Your task to perform on an android device: Open calendar and show me the third week of next month Image 0: 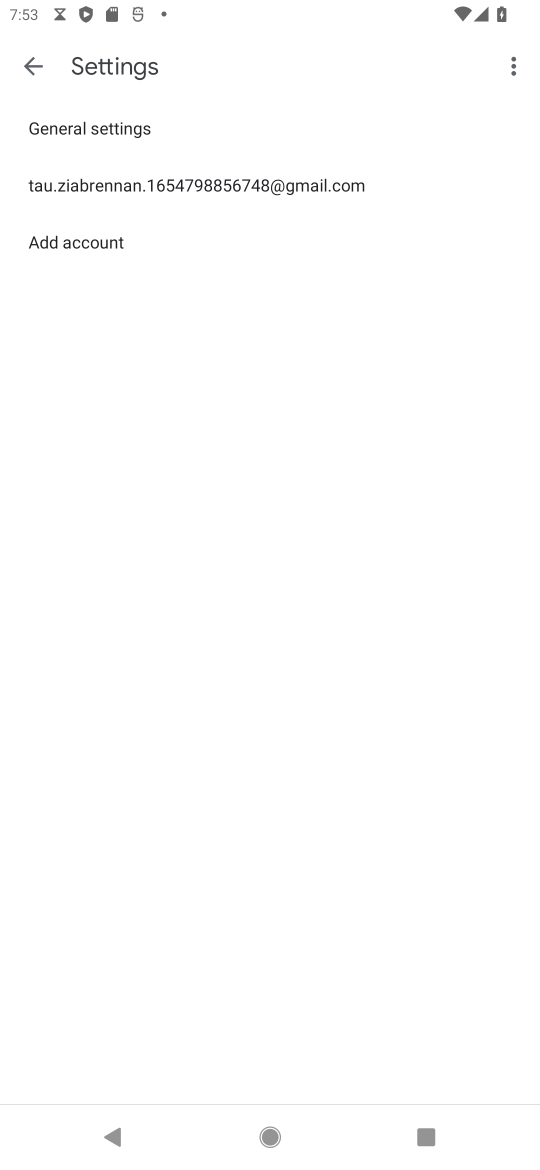
Step 0: press home button
Your task to perform on an android device: Open calendar and show me the third week of next month Image 1: 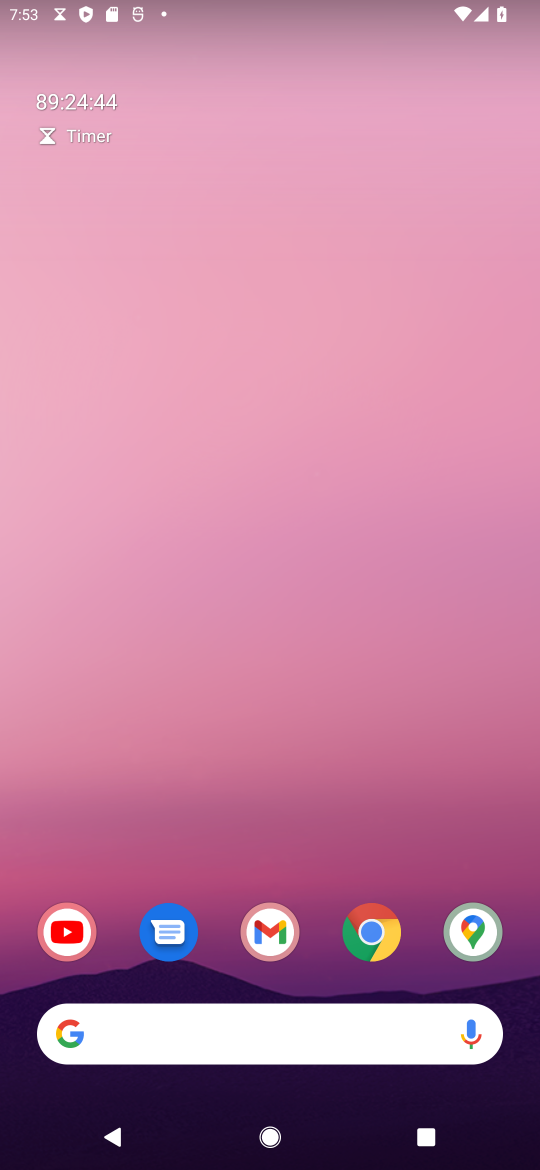
Step 1: drag from (287, 825) to (258, 235)
Your task to perform on an android device: Open calendar and show me the third week of next month Image 2: 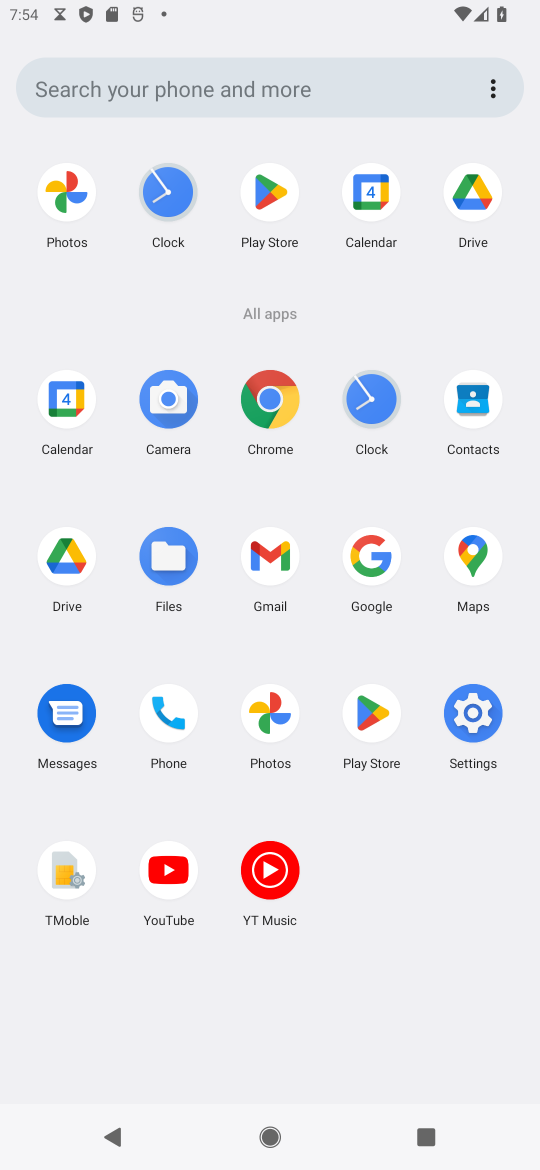
Step 2: click (77, 386)
Your task to perform on an android device: Open calendar and show me the third week of next month Image 3: 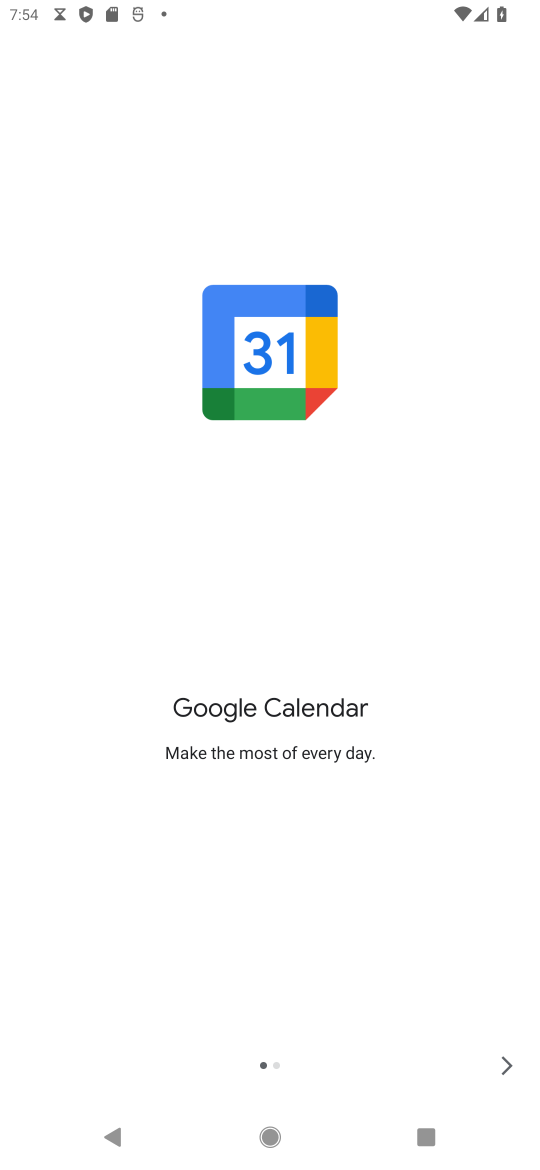
Step 3: click (495, 1068)
Your task to perform on an android device: Open calendar and show me the third week of next month Image 4: 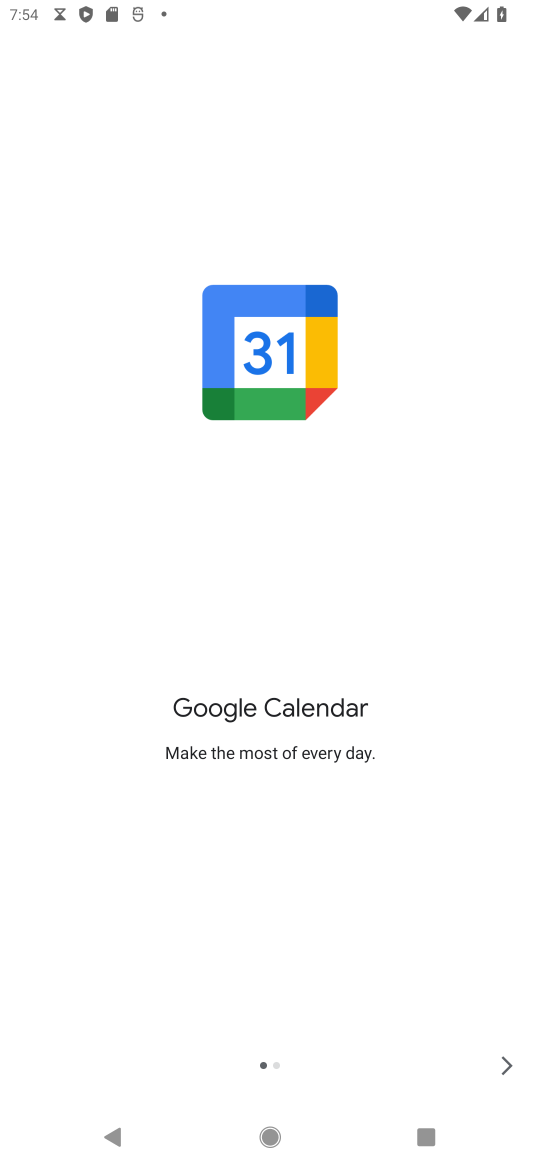
Step 4: click (495, 1068)
Your task to perform on an android device: Open calendar and show me the third week of next month Image 5: 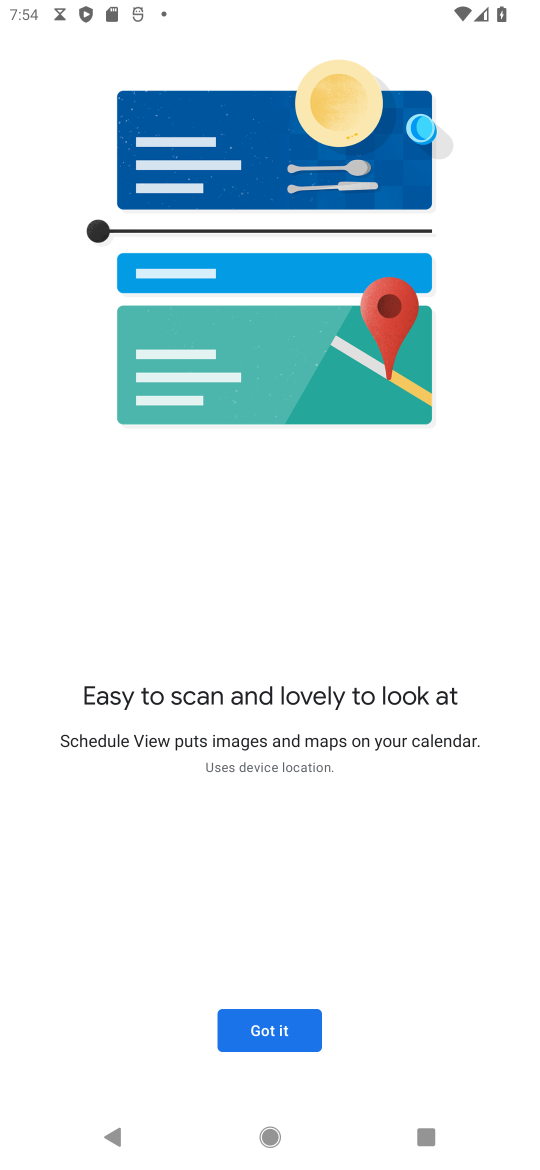
Step 5: click (281, 1025)
Your task to perform on an android device: Open calendar and show me the third week of next month Image 6: 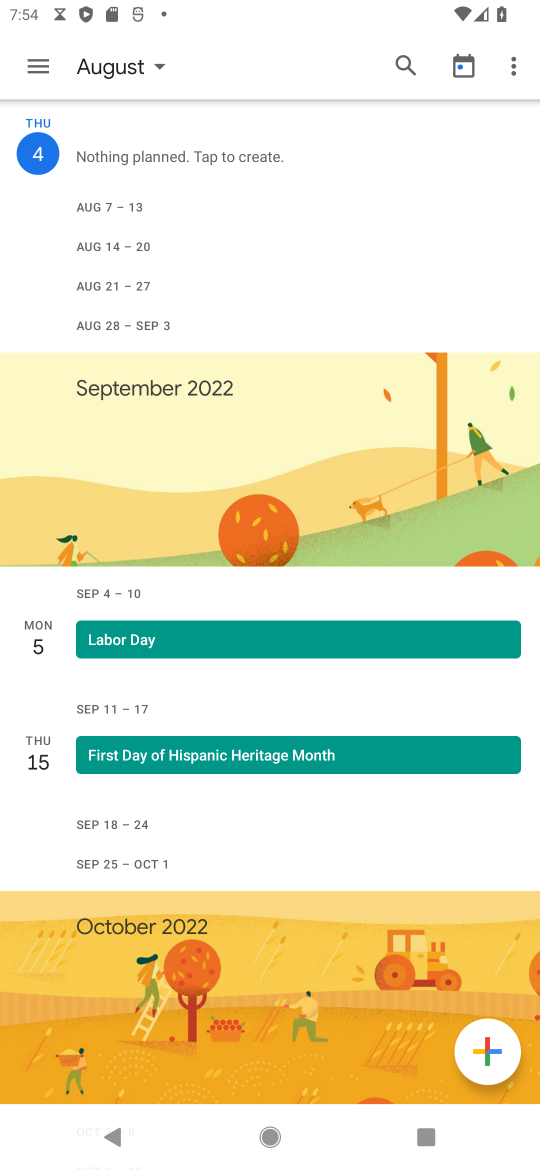
Step 6: click (146, 61)
Your task to perform on an android device: Open calendar and show me the third week of next month Image 7: 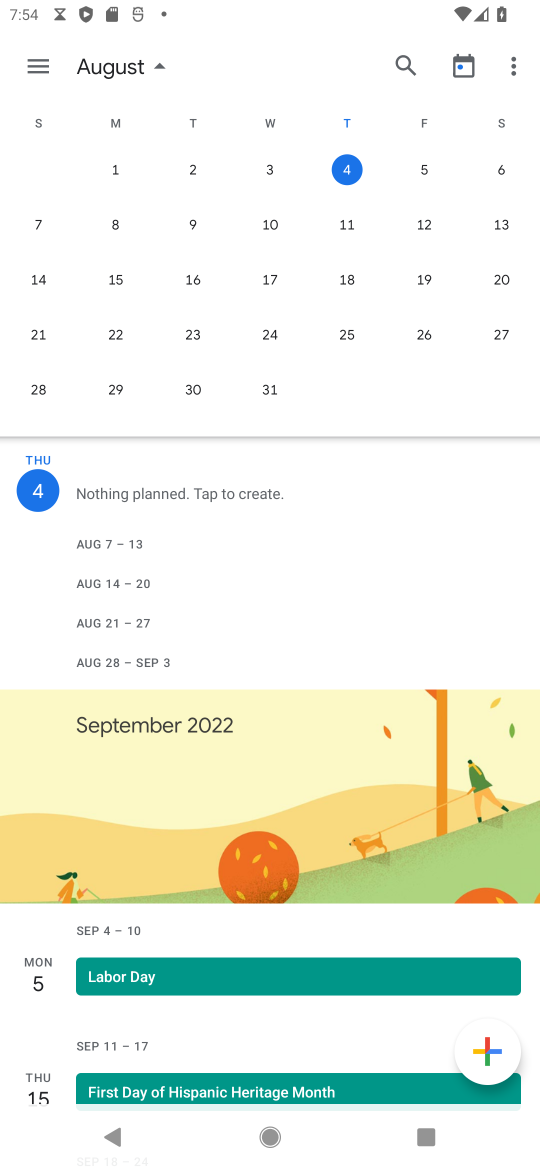
Step 7: drag from (511, 344) to (0, 371)
Your task to perform on an android device: Open calendar and show me the third week of next month Image 8: 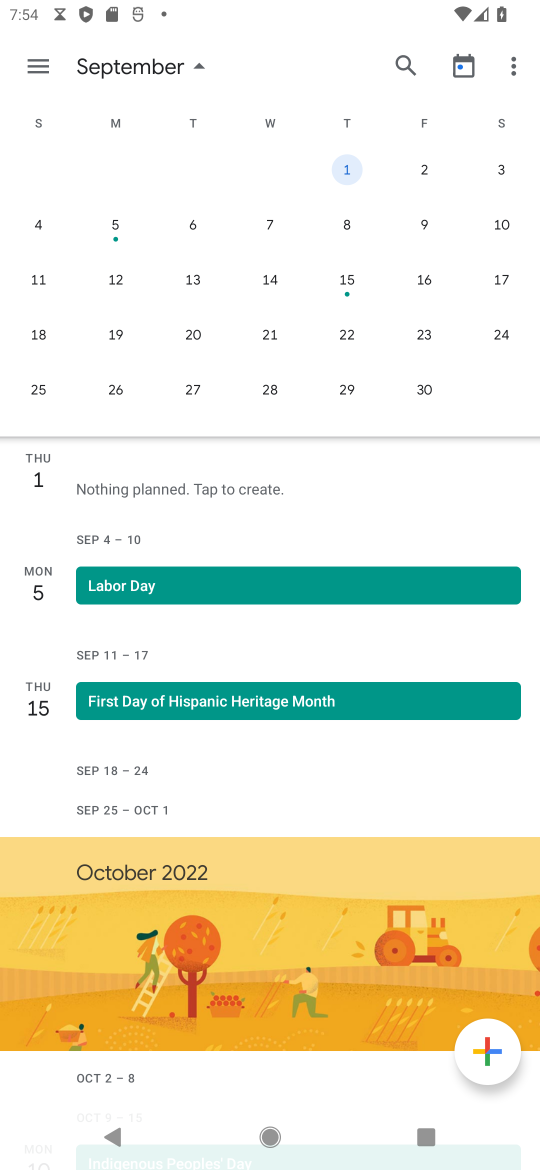
Step 8: click (29, 291)
Your task to perform on an android device: Open calendar and show me the third week of next month Image 9: 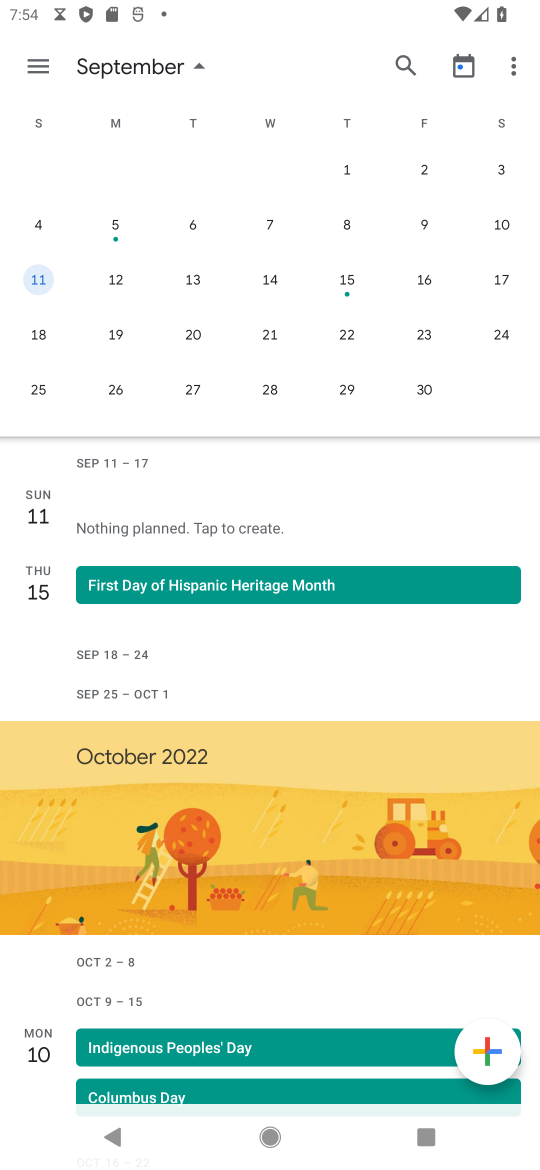
Step 9: task complete